Your task to perform on an android device: Go to network settings Image 0: 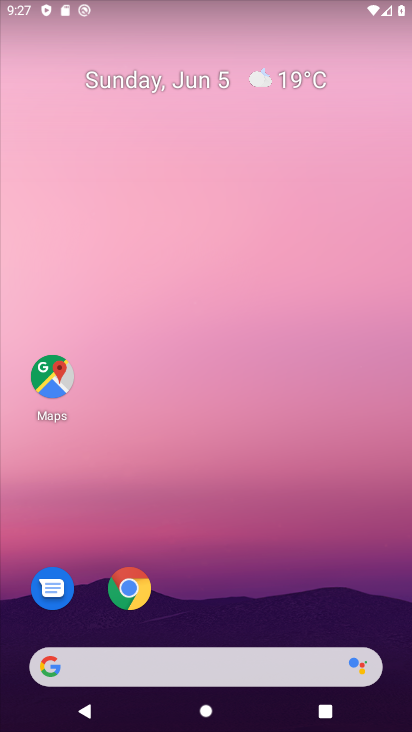
Step 0: click (316, 115)
Your task to perform on an android device: Go to network settings Image 1: 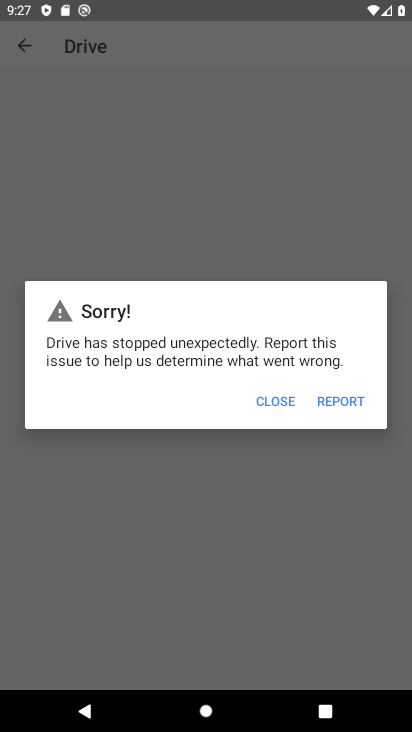
Step 1: press home button
Your task to perform on an android device: Go to network settings Image 2: 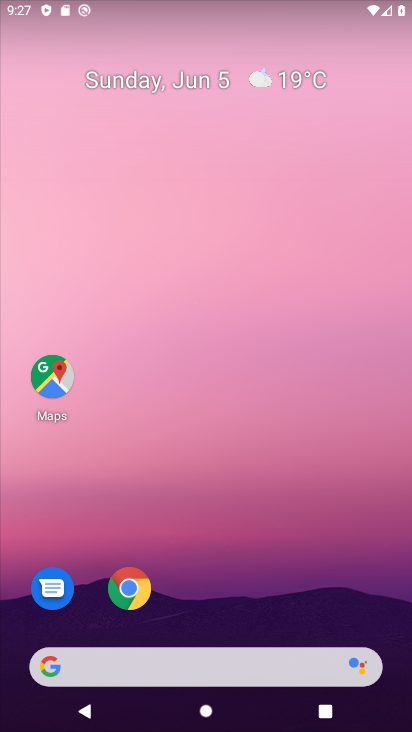
Step 2: drag from (357, 587) to (344, 195)
Your task to perform on an android device: Go to network settings Image 3: 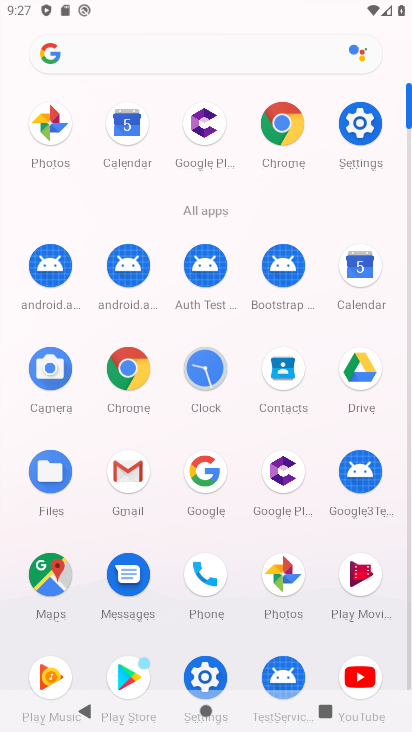
Step 3: click (362, 126)
Your task to perform on an android device: Go to network settings Image 4: 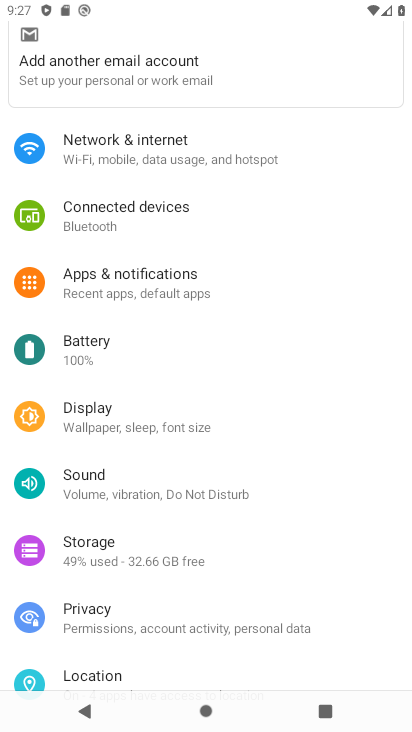
Step 4: drag from (309, 553) to (312, 411)
Your task to perform on an android device: Go to network settings Image 5: 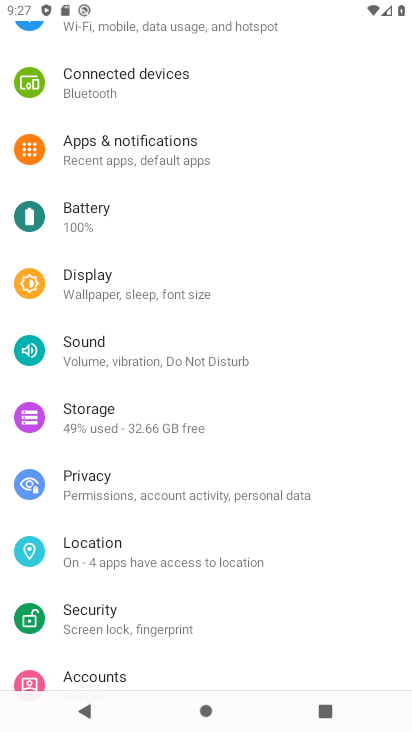
Step 5: drag from (347, 560) to (349, 343)
Your task to perform on an android device: Go to network settings Image 6: 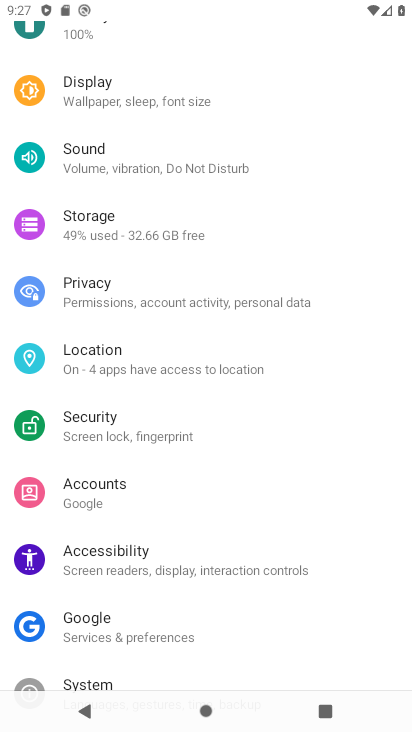
Step 6: drag from (340, 575) to (315, 317)
Your task to perform on an android device: Go to network settings Image 7: 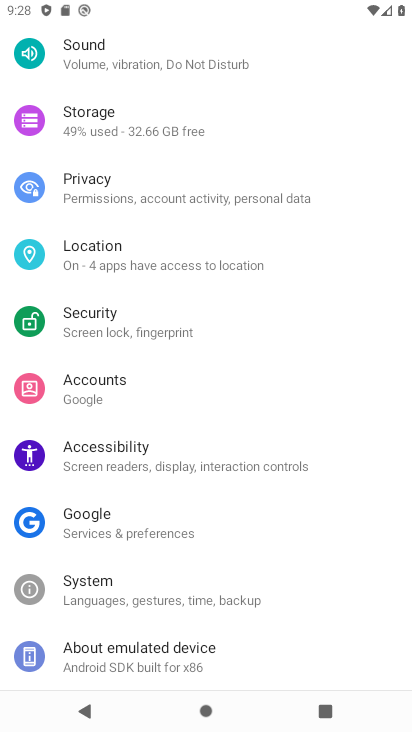
Step 7: drag from (346, 279) to (358, 428)
Your task to perform on an android device: Go to network settings Image 8: 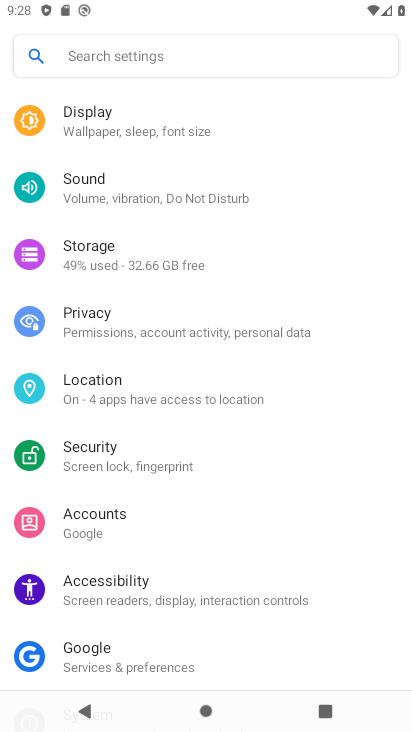
Step 8: drag from (360, 261) to (343, 363)
Your task to perform on an android device: Go to network settings Image 9: 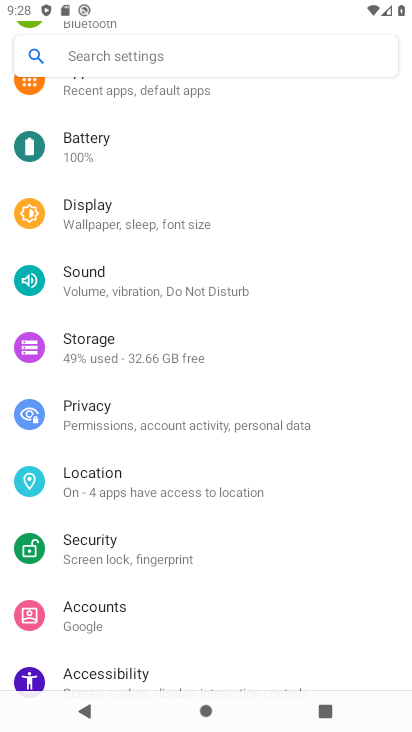
Step 9: drag from (342, 284) to (336, 371)
Your task to perform on an android device: Go to network settings Image 10: 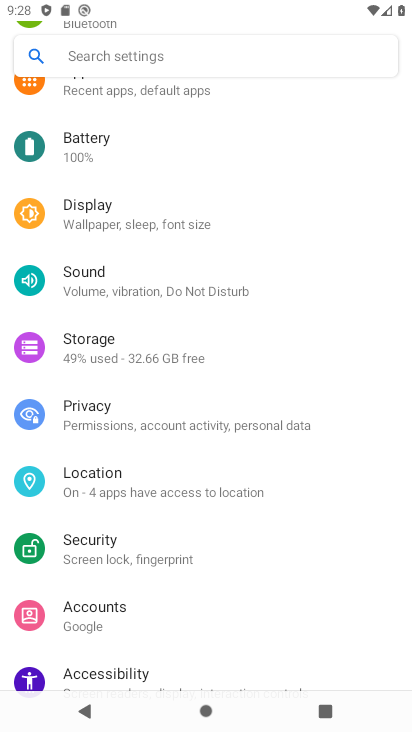
Step 10: drag from (339, 269) to (342, 458)
Your task to perform on an android device: Go to network settings Image 11: 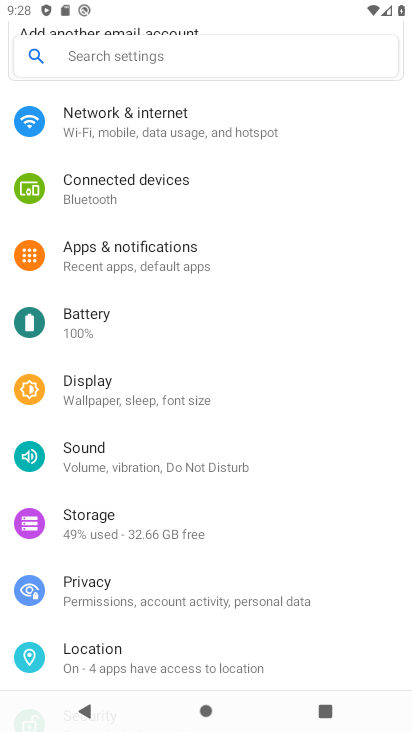
Step 11: drag from (330, 209) to (299, 413)
Your task to perform on an android device: Go to network settings Image 12: 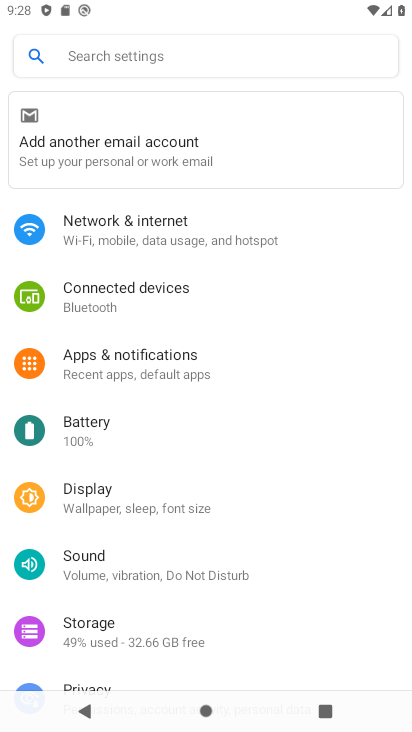
Step 12: click (236, 224)
Your task to perform on an android device: Go to network settings Image 13: 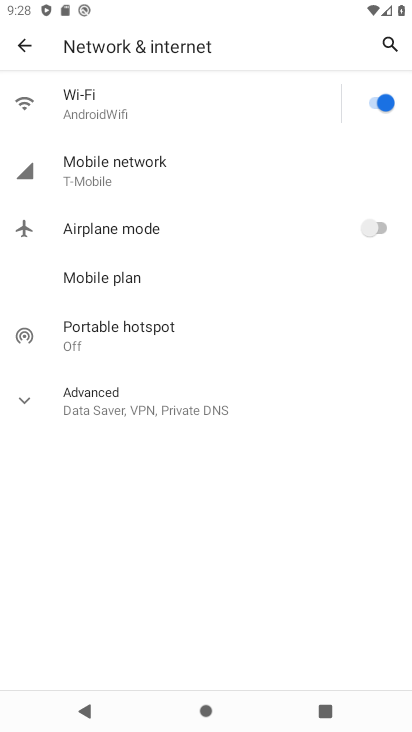
Step 13: task complete